Your task to perform on an android device: visit the assistant section in the google photos Image 0: 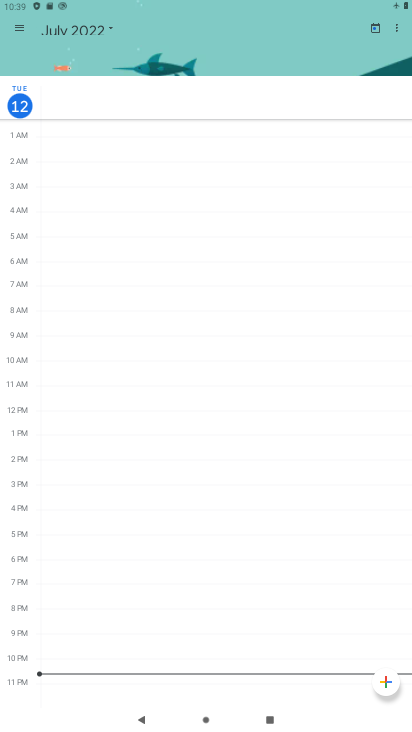
Step 0: press home button
Your task to perform on an android device: visit the assistant section in the google photos Image 1: 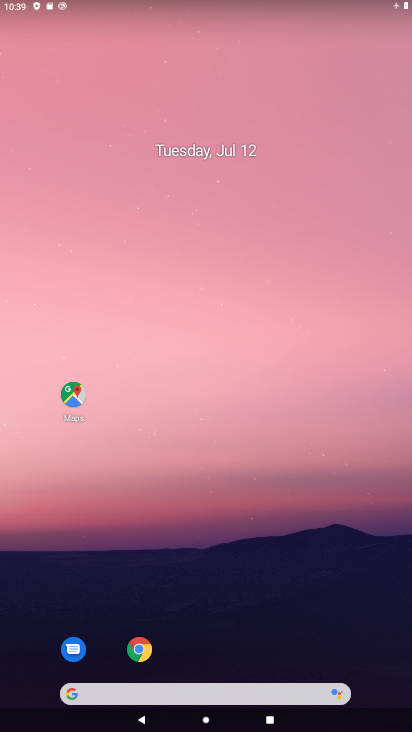
Step 1: drag from (386, 670) to (343, 158)
Your task to perform on an android device: visit the assistant section in the google photos Image 2: 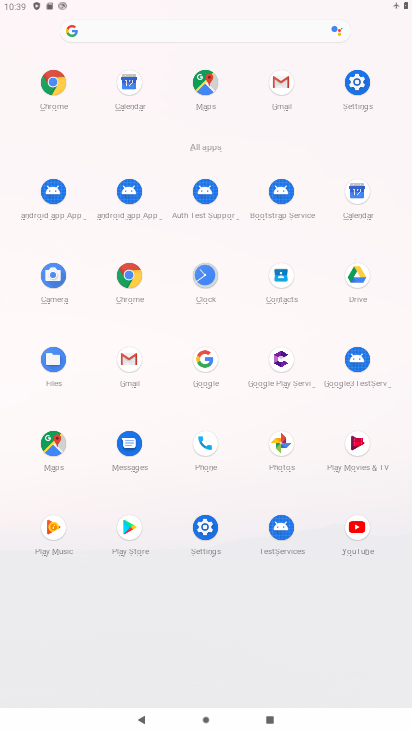
Step 2: click (278, 441)
Your task to perform on an android device: visit the assistant section in the google photos Image 3: 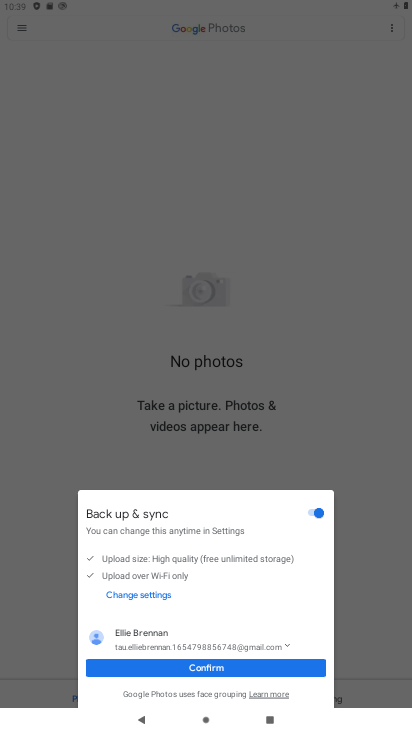
Step 3: click (207, 665)
Your task to perform on an android device: visit the assistant section in the google photos Image 4: 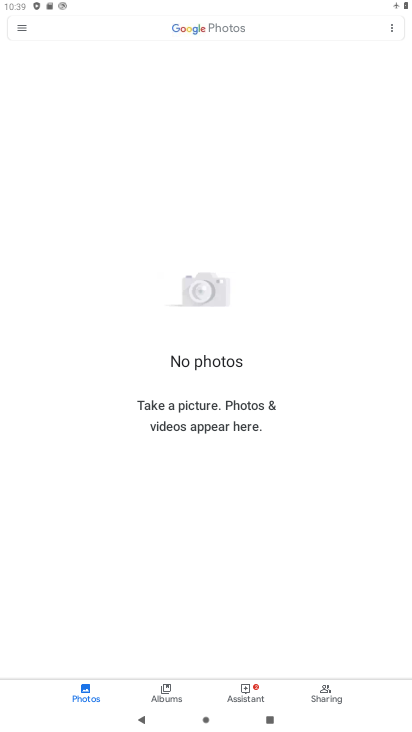
Step 4: click (249, 695)
Your task to perform on an android device: visit the assistant section in the google photos Image 5: 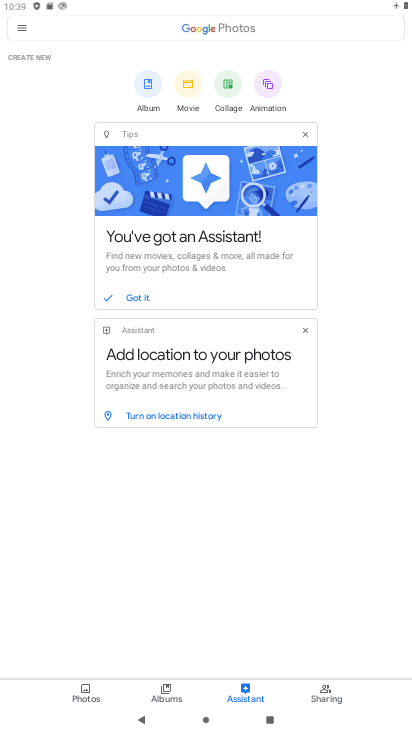
Step 5: task complete